Your task to perform on an android device: Go to Google maps Image 0: 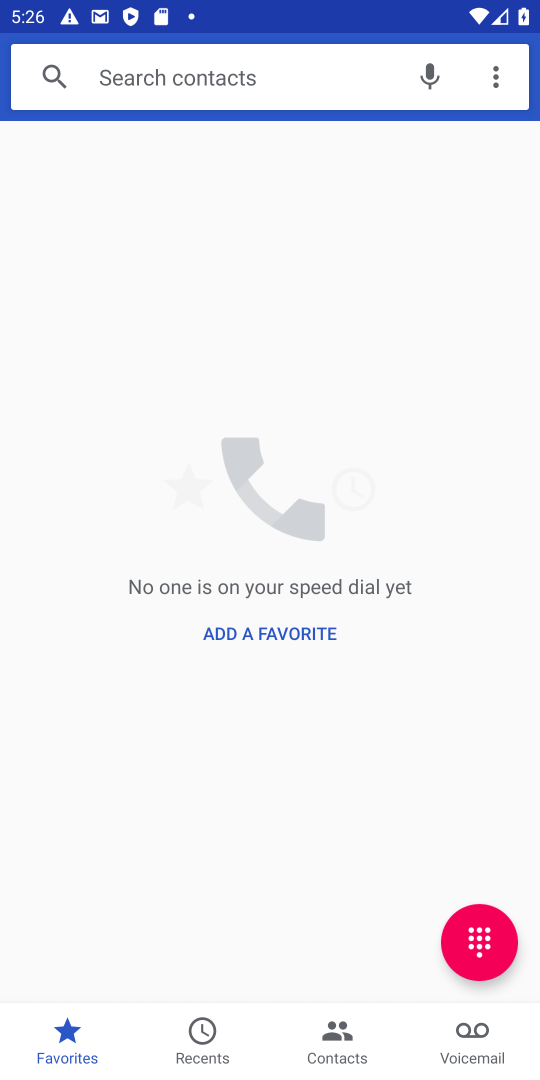
Step 0: press back button
Your task to perform on an android device: Go to Google maps Image 1: 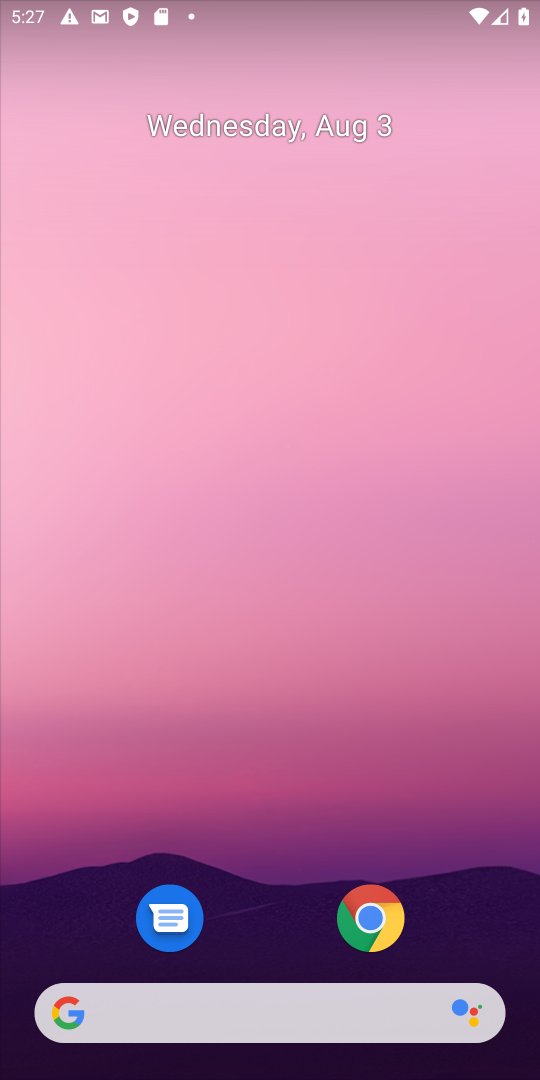
Step 1: drag from (270, 908) to (216, 62)
Your task to perform on an android device: Go to Google maps Image 2: 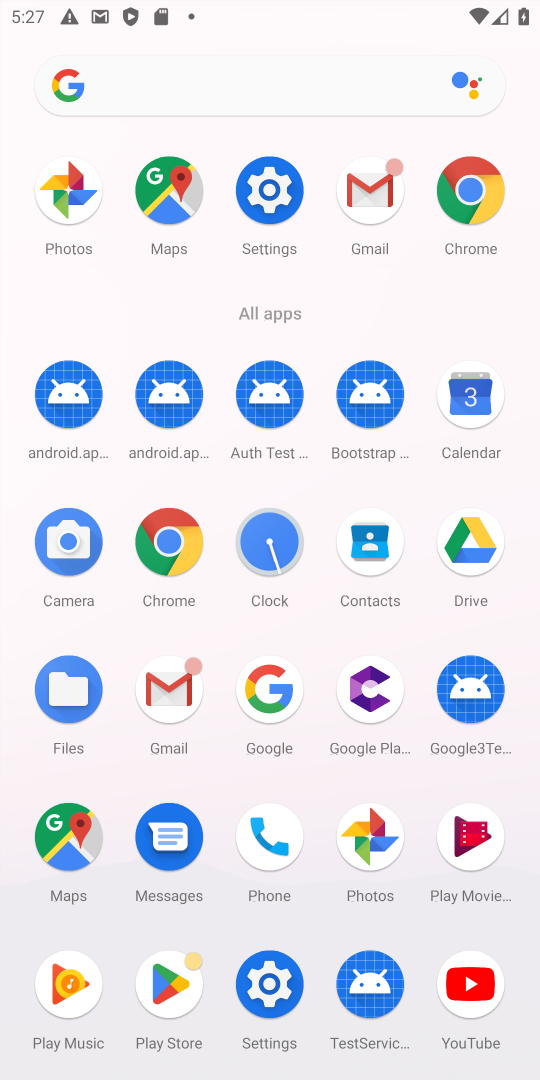
Step 2: click (63, 857)
Your task to perform on an android device: Go to Google maps Image 3: 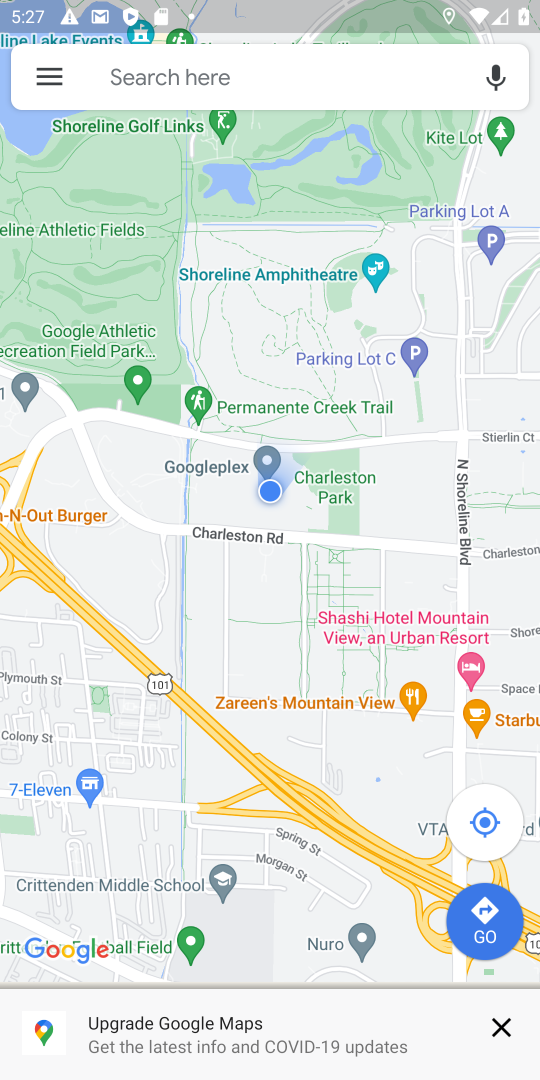
Step 3: task complete